Your task to perform on an android device: change alarm snooze length Image 0: 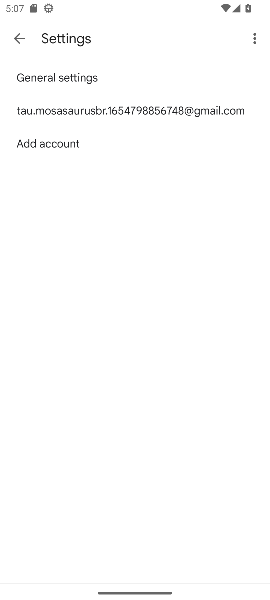
Step 0: press home button
Your task to perform on an android device: change alarm snooze length Image 1: 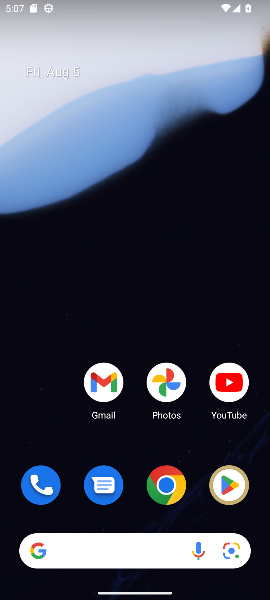
Step 1: drag from (191, 447) to (202, 80)
Your task to perform on an android device: change alarm snooze length Image 2: 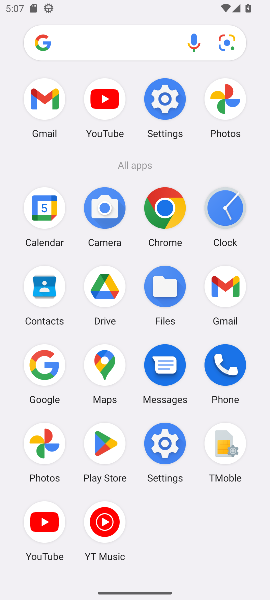
Step 2: click (228, 216)
Your task to perform on an android device: change alarm snooze length Image 3: 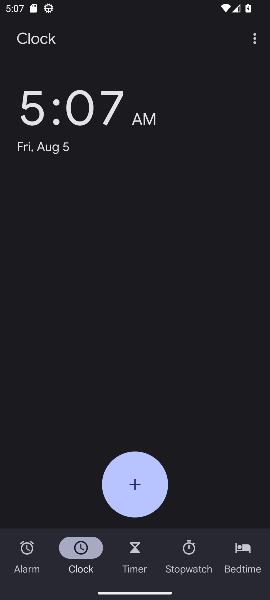
Step 3: click (256, 42)
Your task to perform on an android device: change alarm snooze length Image 4: 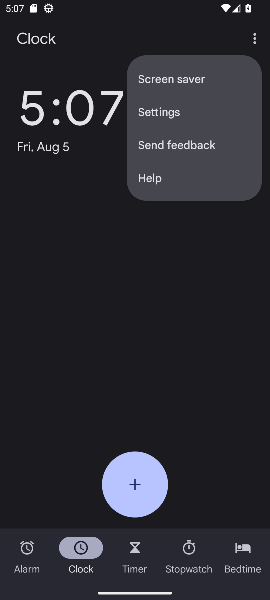
Step 4: click (193, 109)
Your task to perform on an android device: change alarm snooze length Image 5: 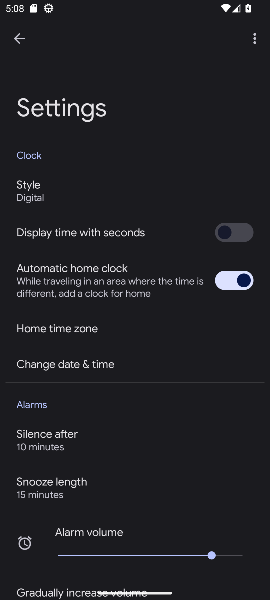
Step 5: click (88, 487)
Your task to perform on an android device: change alarm snooze length Image 6: 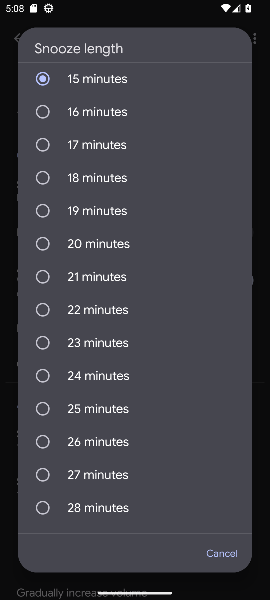
Step 6: click (101, 407)
Your task to perform on an android device: change alarm snooze length Image 7: 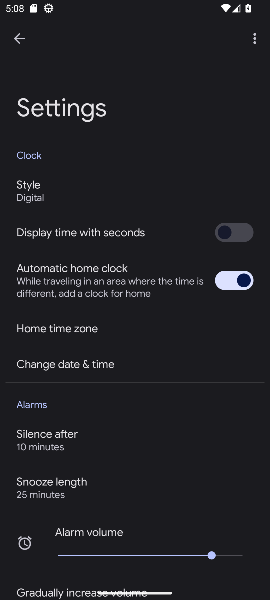
Step 7: task complete